Your task to perform on an android device: turn off location history Image 0: 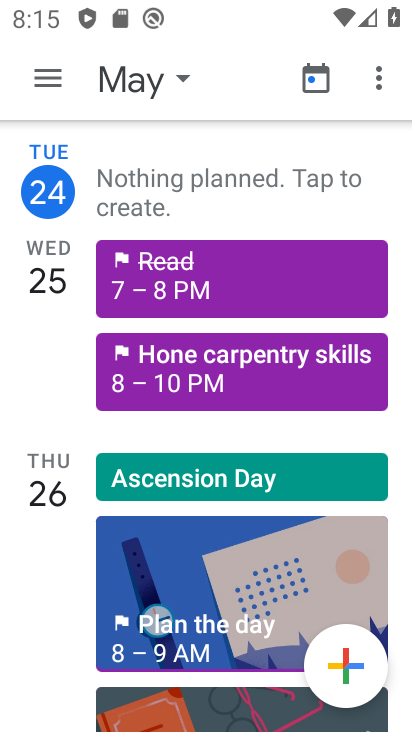
Step 0: press home button
Your task to perform on an android device: turn off location history Image 1: 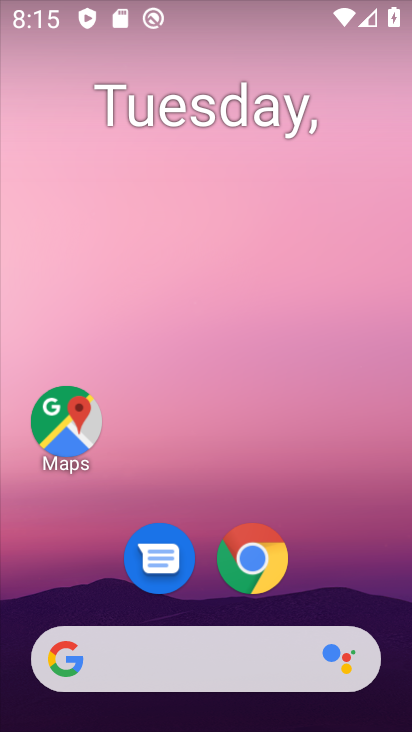
Step 1: drag from (199, 602) to (198, 153)
Your task to perform on an android device: turn off location history Image 2: 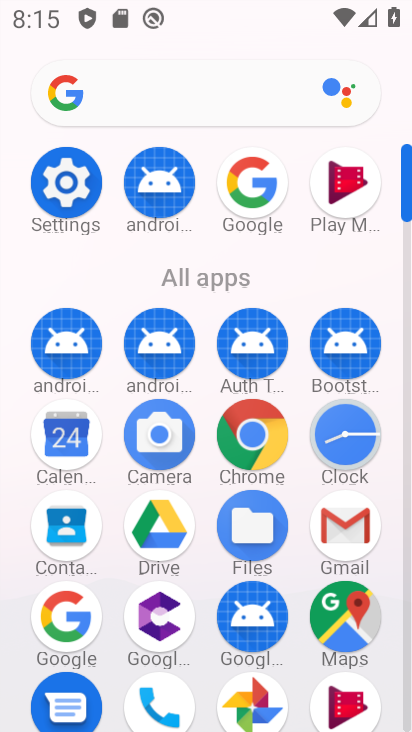
Step 2: click (57, 196)
Your task to perform on an android device: turn off location history Image 3: 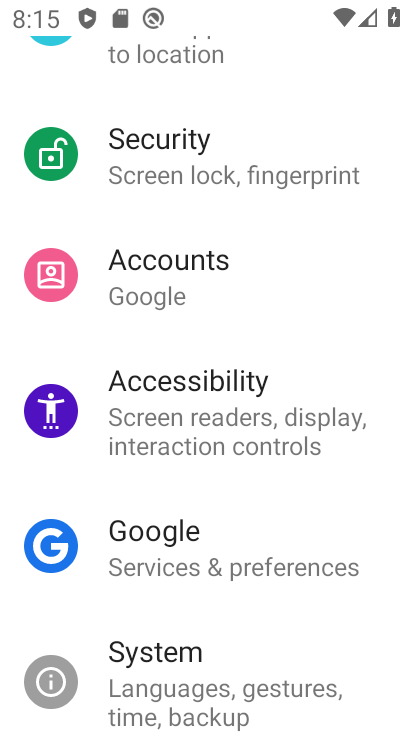
Step 3: drag from (242, 592) to (288, 216)
Your task to perform on an android device: turn off location history Image 4: 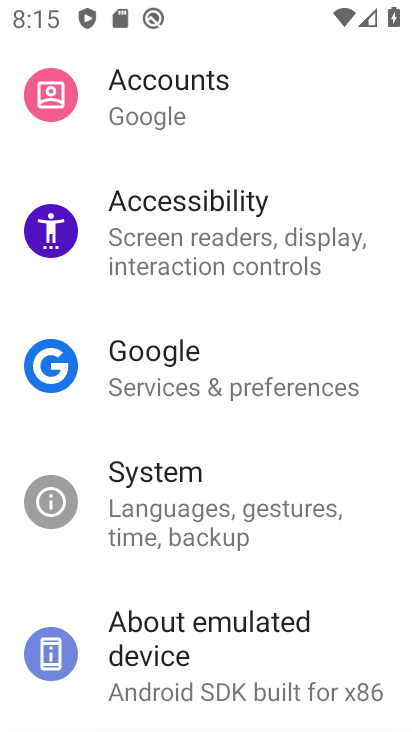
Step 4: drag from (277, 197) to (285, 536)
Your task to perform on an android device: turn off location history Image 5: 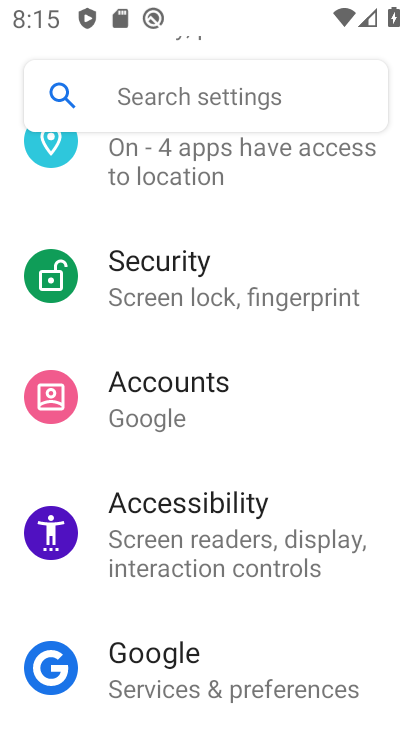
Step 5: click (221, 183)
Your task to perform on an android device: turn off location history Image 6: 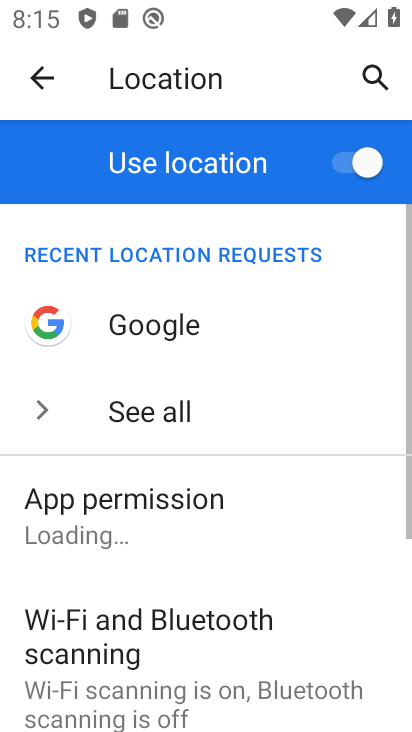
Step 6: drag from (291, 595) to (277, 242)
Your task to perform on an android device: turn off location history Image 7: 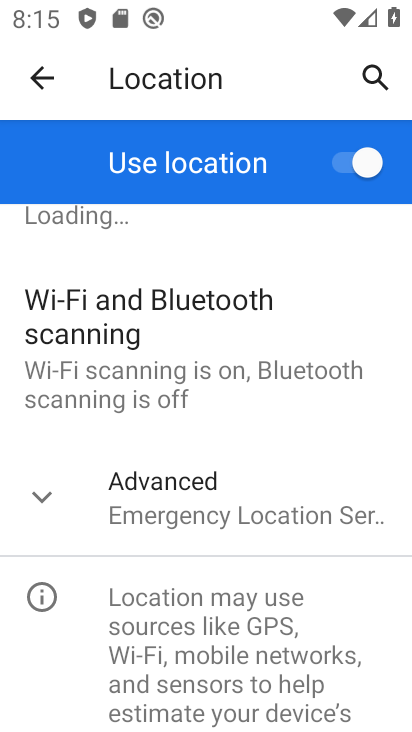
Step 7: click (230, 480)
Your task to perform on an android device: turn off location history Image 8: 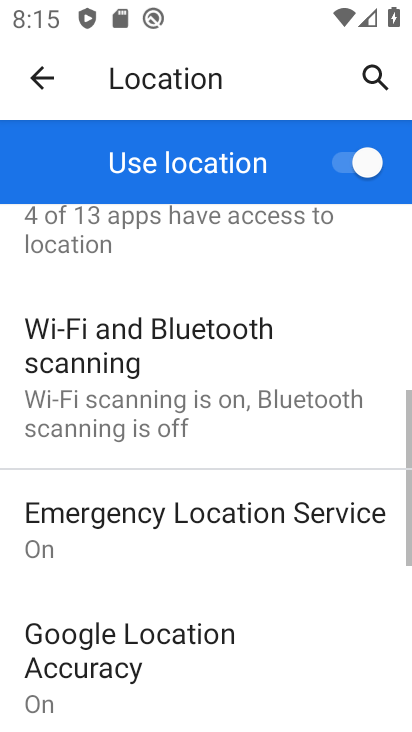
Step 8: drag from (211, 615) to (251, 397)
Your task to perform on an android device: turn off location history Image 9: 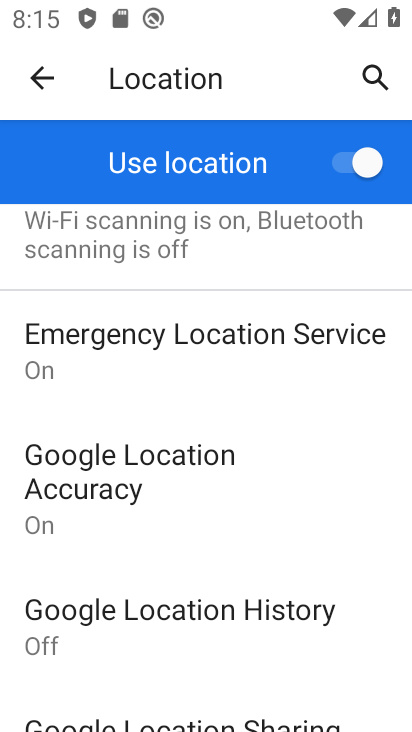
Step 9: drag from (243, 628) to (278, 447)
Your task to perform on an android device: turn off location history Image 10: 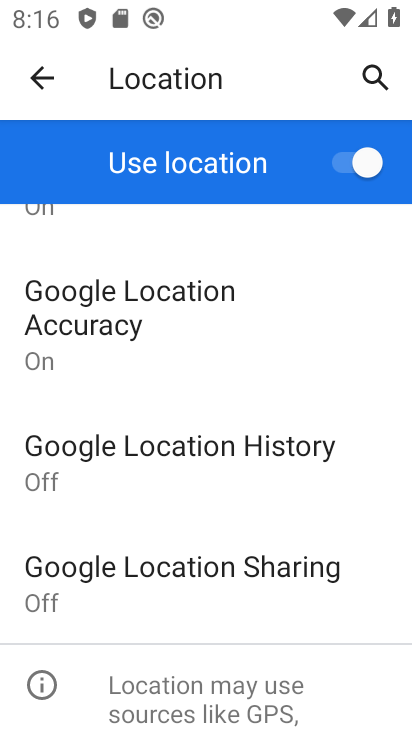
Step 10: click (236, 445)
Your task to perform on an android device: turn off location history Image 11: 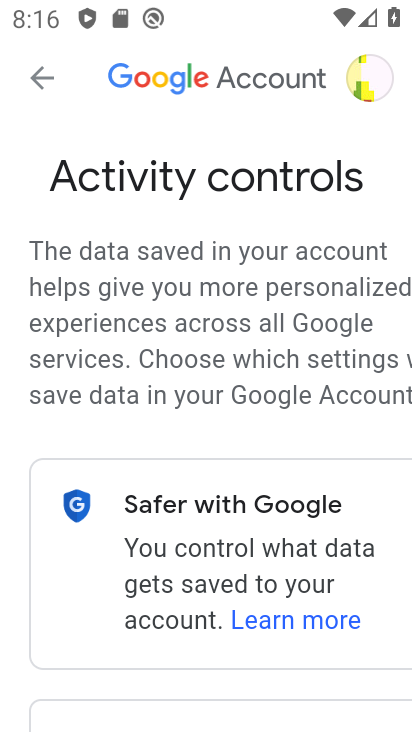
Step 11: task complete